Your task to perform on an android device: clear all cookies in the chrome app Image 0: 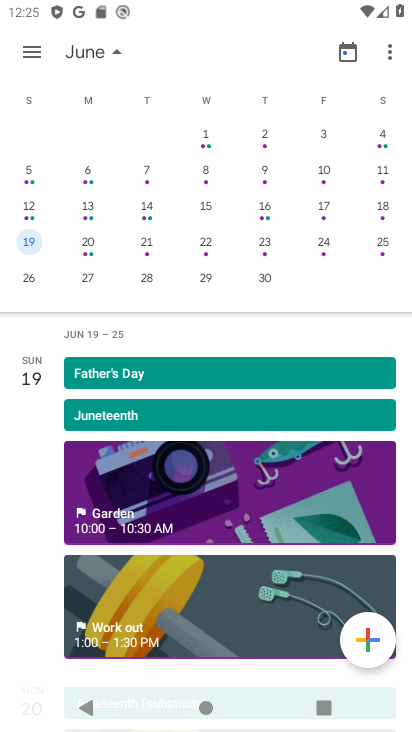
Step 0: press home button
Your task to perform on an android device: clear all cookies in the chrome app Image 1: 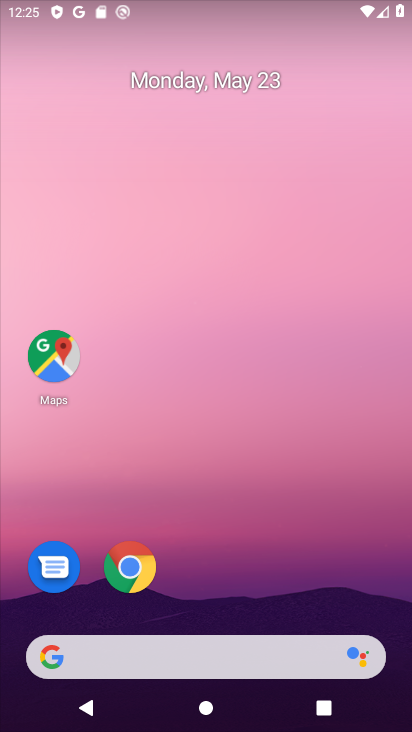
Step 1: click (124, 572)
Your task to perform on an android device: clear all cookies in the chrome app Image 2: 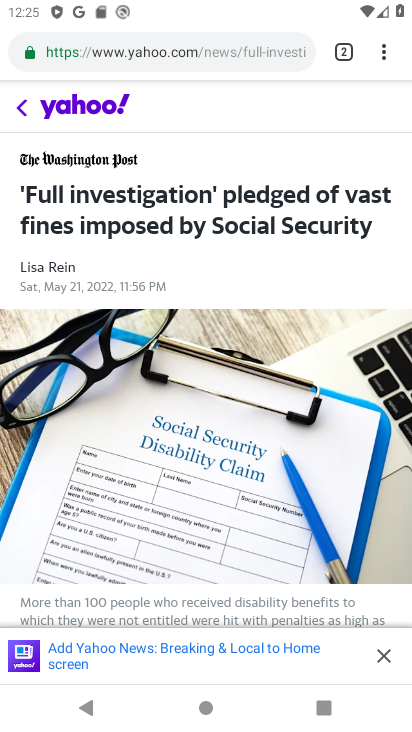
Step 2: click (386, 64)
Your task to perform on an android device: clear all cookies in the chrome app Image 3: 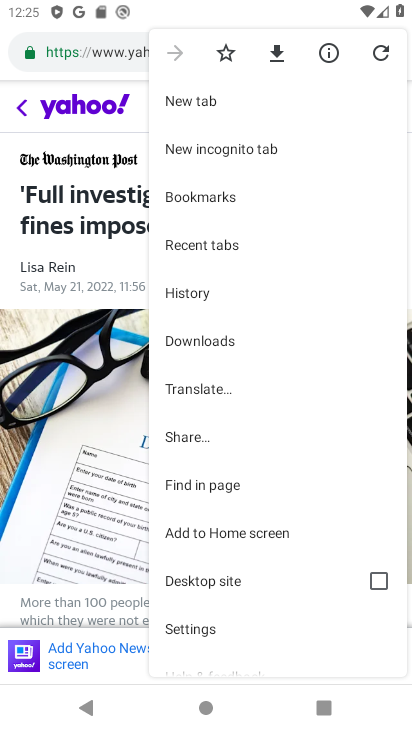
Step 3: click (194, 291)
Your task to perform on an android device: clear all cookies in the chrome app Image 4: 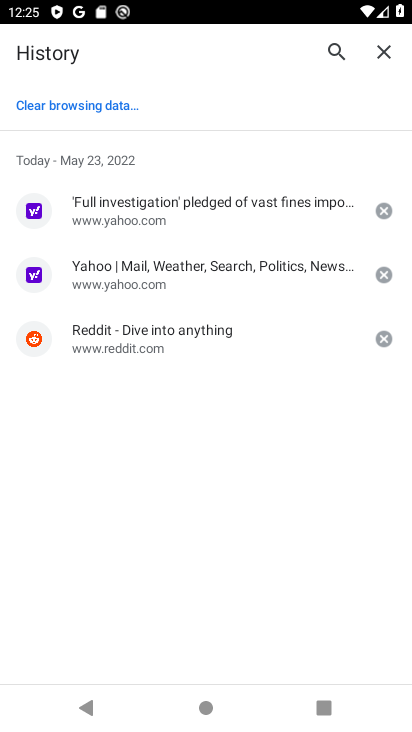
Step 4: click (43, 103)
Your task to perform on an android device: clear all cookies in the chrome app Image 5: 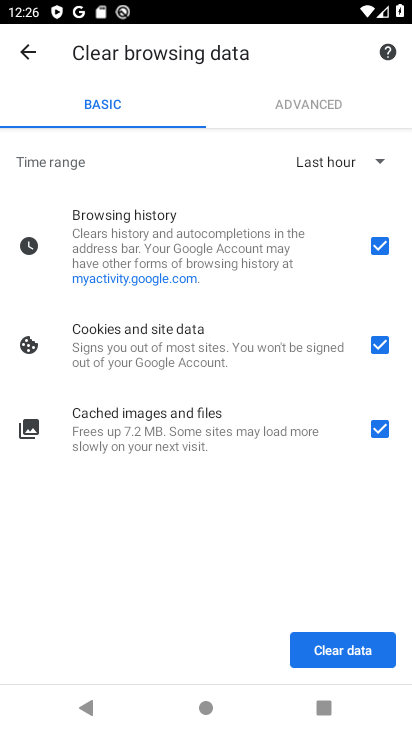
Step 5: click (344, 647)
Your task to perform on an android device: clear all cookies in the chrome app Image 6: 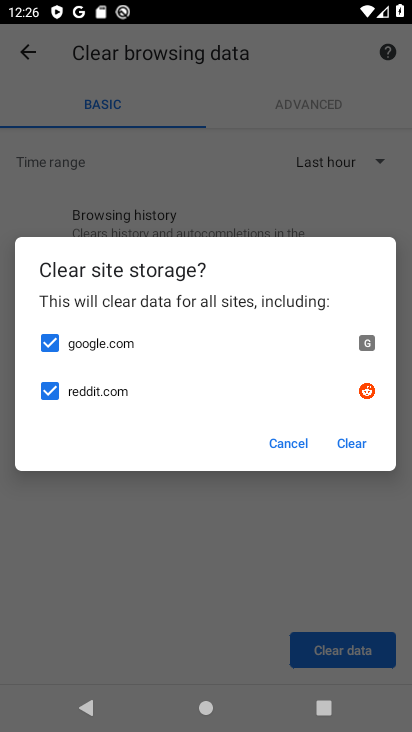
Step 6: click (356, 434)
Your task to perform on an android device: clear all cookies in the chrome app Image 7: 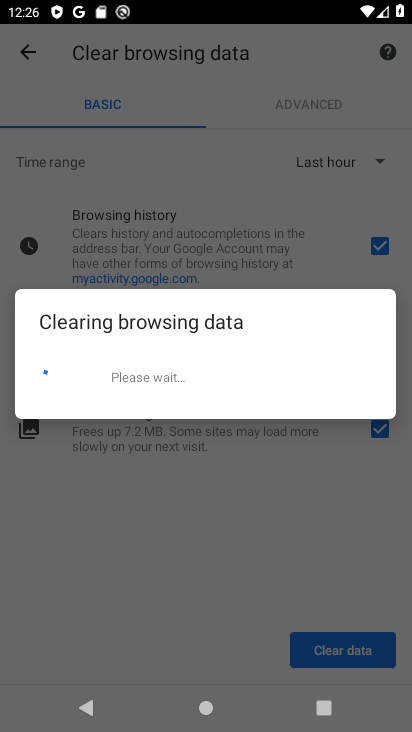
Step 7: task complete